Your task to perform on an android device: manage bookmarks in the chrome app Image 0: 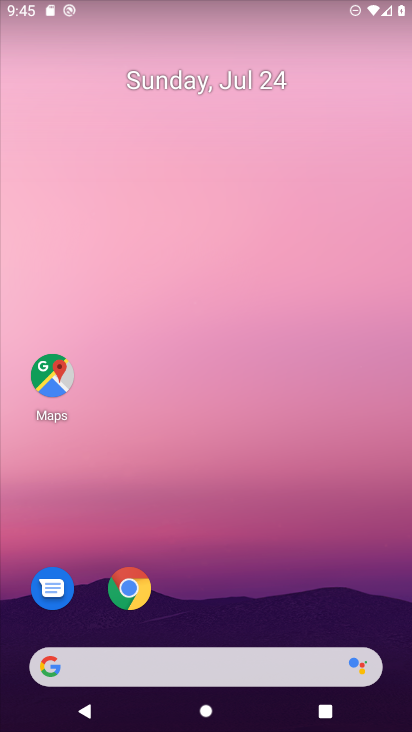
Step 0: click (128, 590)
Your task to perform on an android device: manage bookmarks in the chrome app Image 1: 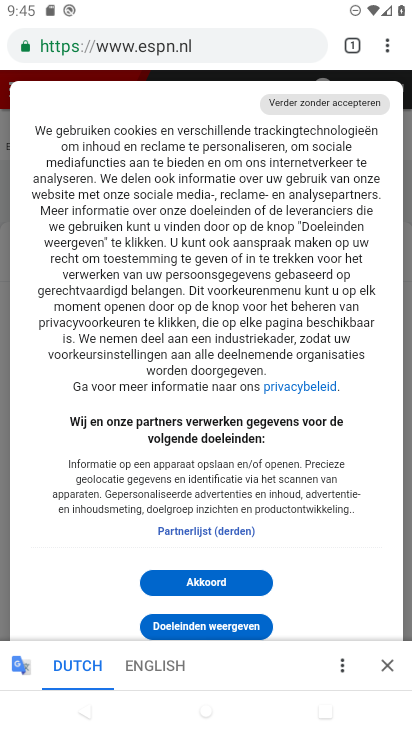
Step 1: click (388, 51)
Your task to perform on an android device: manage bookmarks in the chrome app Image 2: 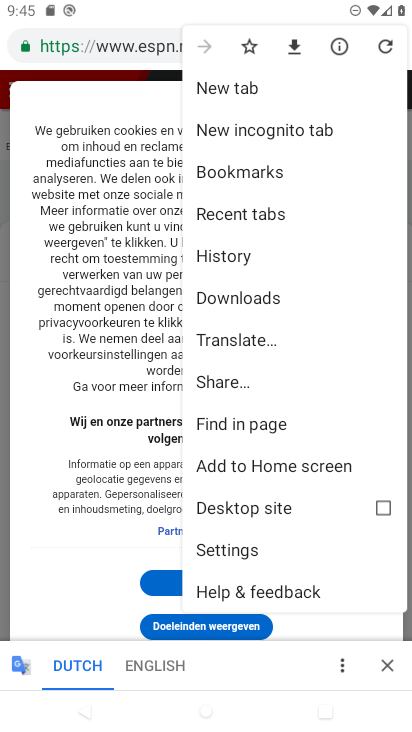
Step 2: click (222, 187)
Your task to perform on an android device: manage bookmarks in the chrome app Image 3: 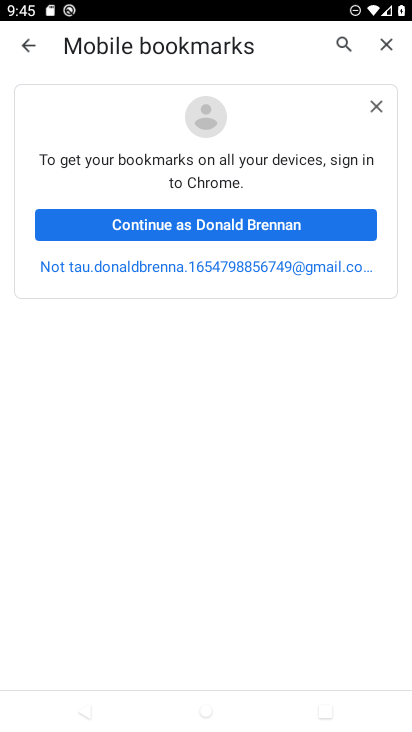
Step 3: click (184, 230)
Your task to perform on an android device: manage bookmarks in the chrome app Image 4: 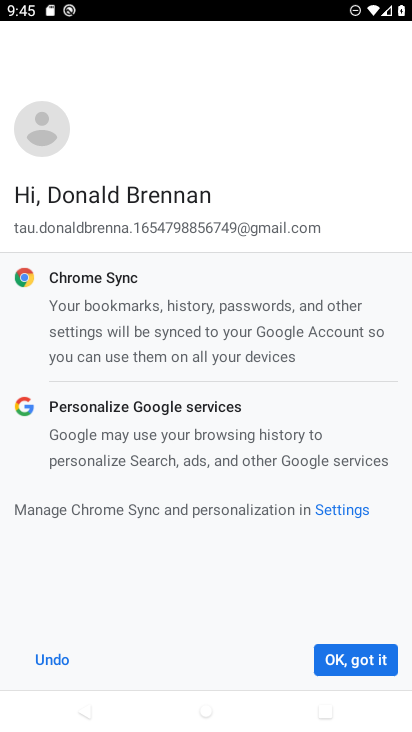
Step 4: click (330, 654)
Your task to perform on an android device: manage bookmarks in the chrome app Image 5: 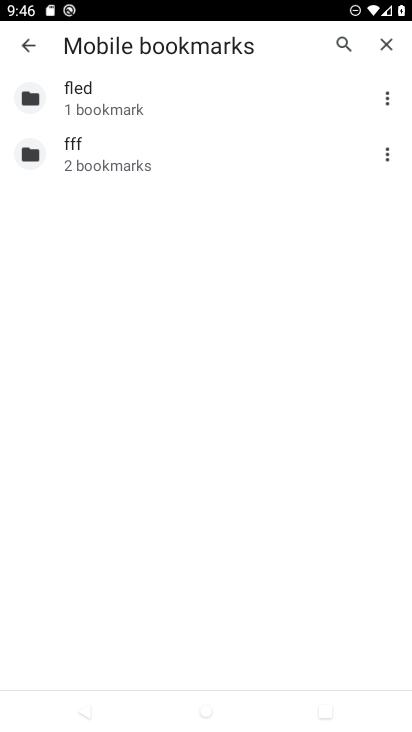
Step 5: click (391, 153)
Your task to perform on an android device: manage bookmarks in the chrome app Image 6: 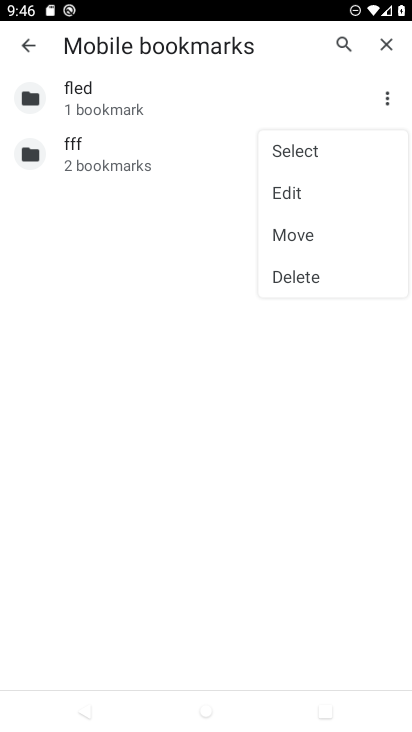
Step 6: click (174, 162)
Your task to perform on an android device: manage bookmarks in the chrome app Image 7: 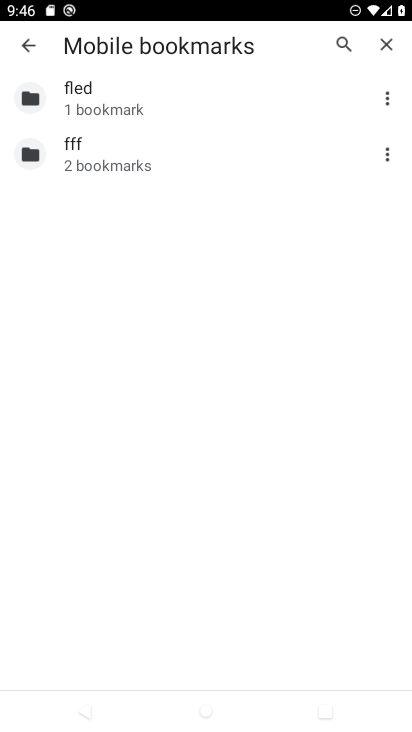
Step 7: click (157, 167)
Your task to perform on an android device: manage bookmarks in the chrome app Image 8: 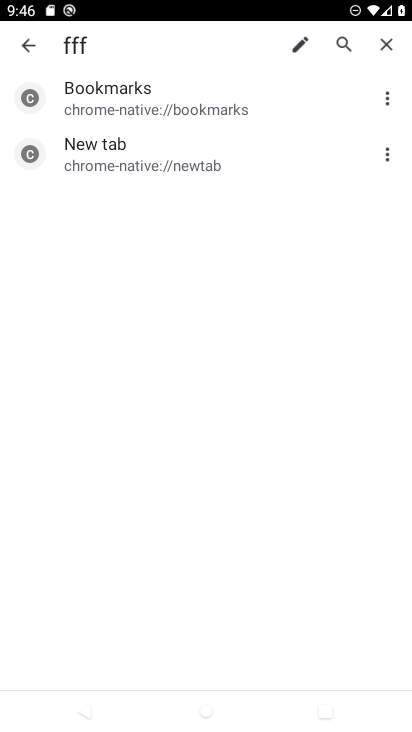
Step 8: click (157, 167)
Your task to perform on an android device: manage bookmarks in the chrome app Image 9: 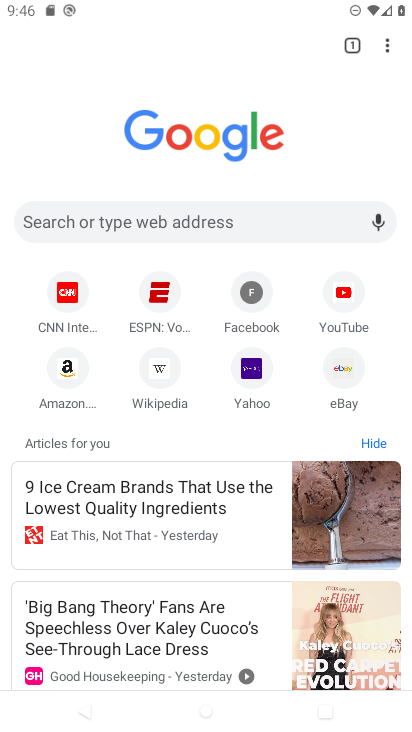
Step 9: click (387, 43)
Your task to perform on an android device: manage bookmarks in the chrome app Image 10: 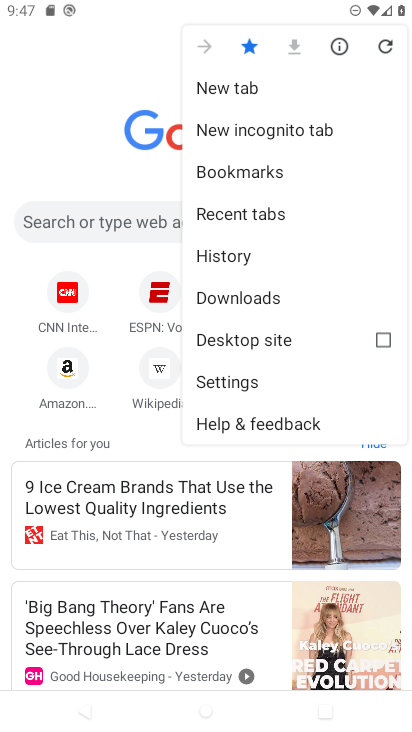
Step 10: click (243, 174)
Your task to perform on an android device: manage bookmarks in the chrome app Image 11: 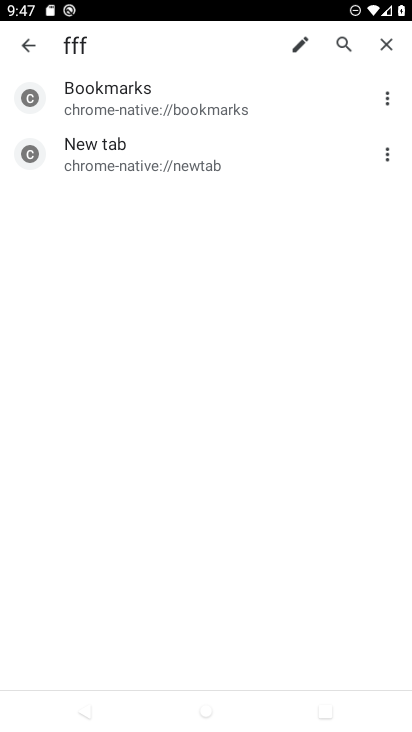
Step 11: click (390, 150)
Your task to perform on an android device: manage bookmarks in the chrome app Image 12: 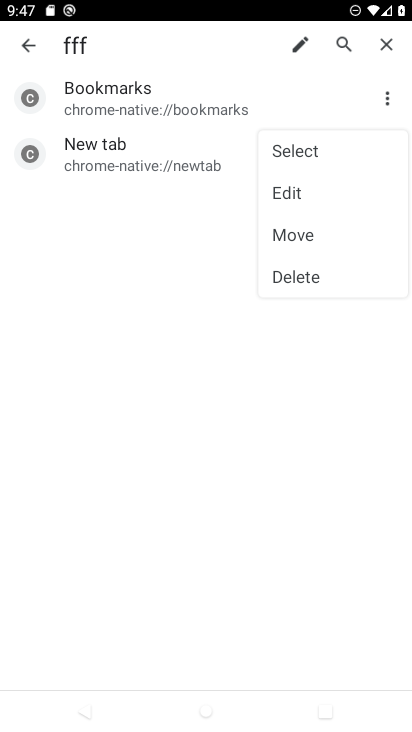
Step 12: click (293, 274)
Your task to perform on an android device: manage bookmarks in the chrome app Image 13: 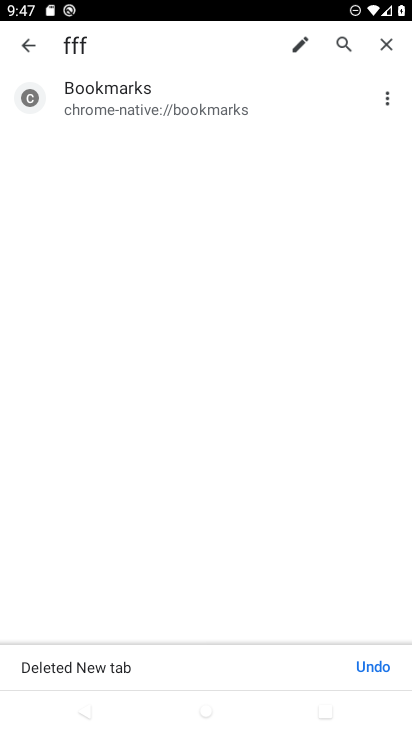
Step 13: task complete